Your task to perform on an android device: change timer sound Image 0: 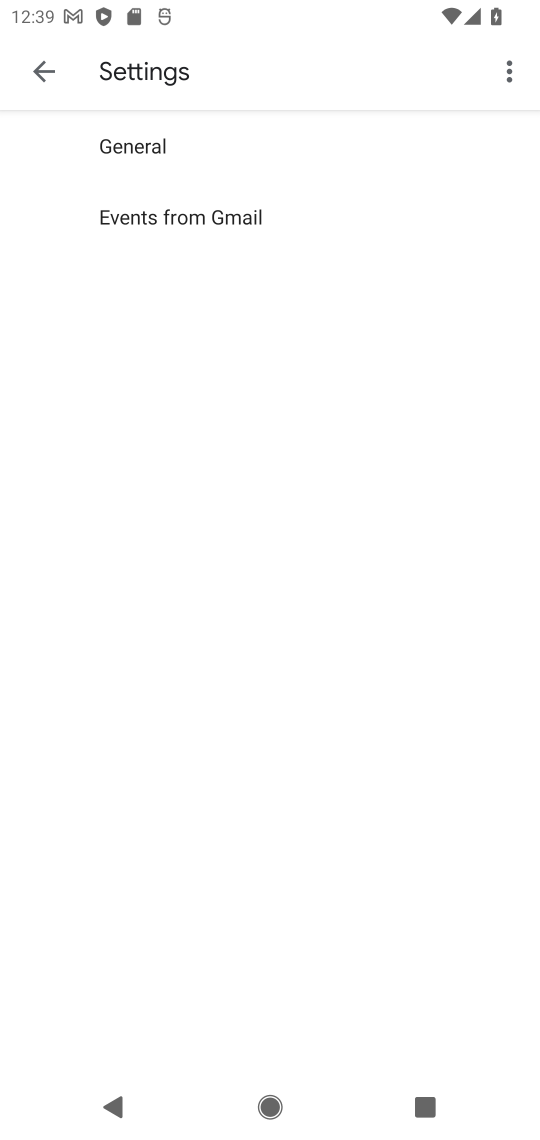
Step 0: press home button
Your task to perform on an android device: change timer sound Image 1: 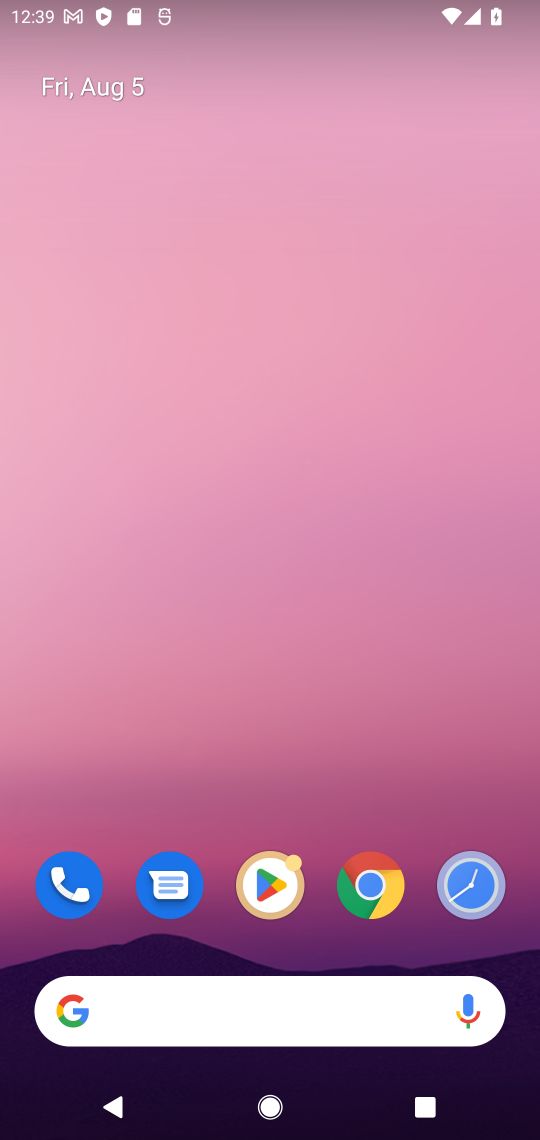
Step 1: drag from (231, 849) to (264, 192)
Your task to perform on an android device: change timer sound Image 2: 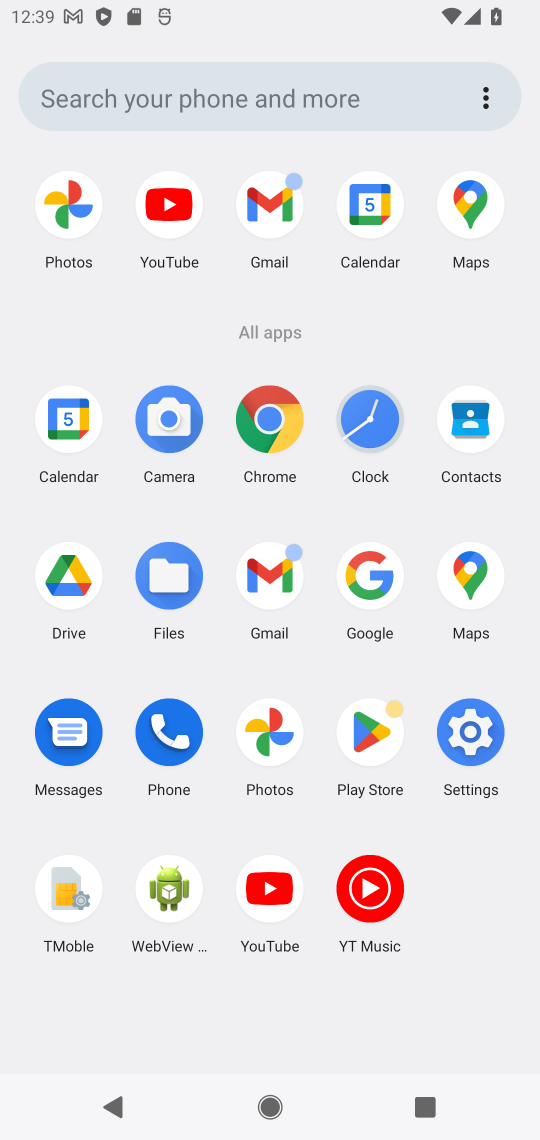
Step 2: click (373, 418)
Your task to perform on an android device: change timer sound Image 3: 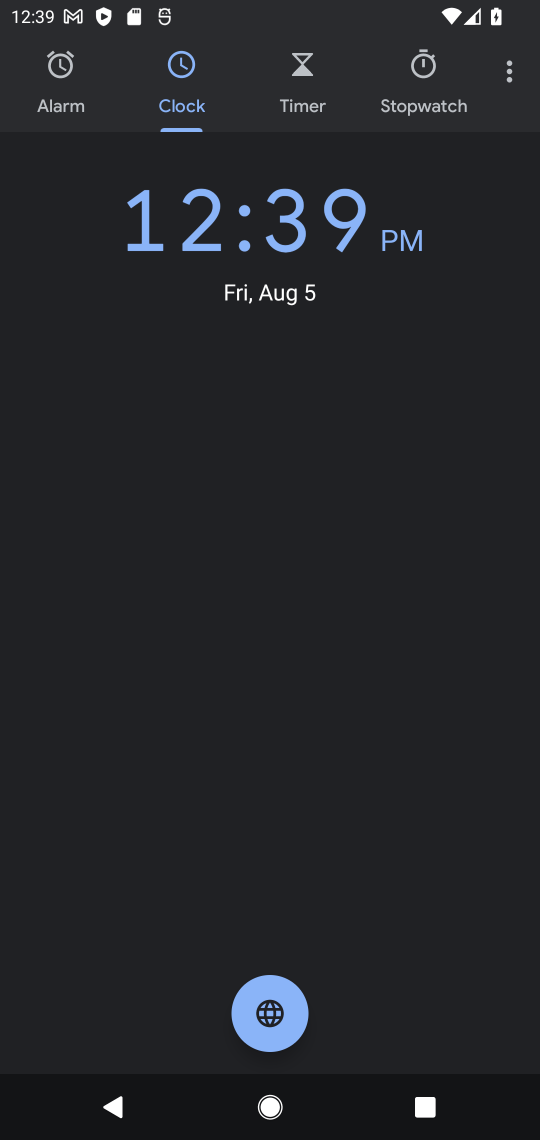
Step 3: click (511, 75)
Your task to perform on an android device: change timer sound Image 4: 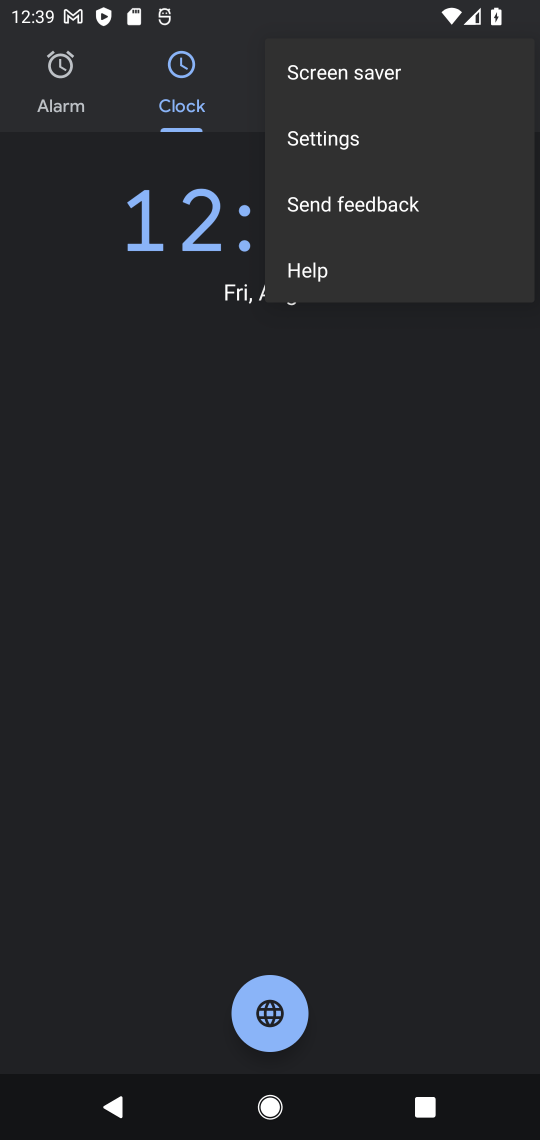
Step 4: click (335, 136)
Your task to perform on an android device: change timer sound Image 5: 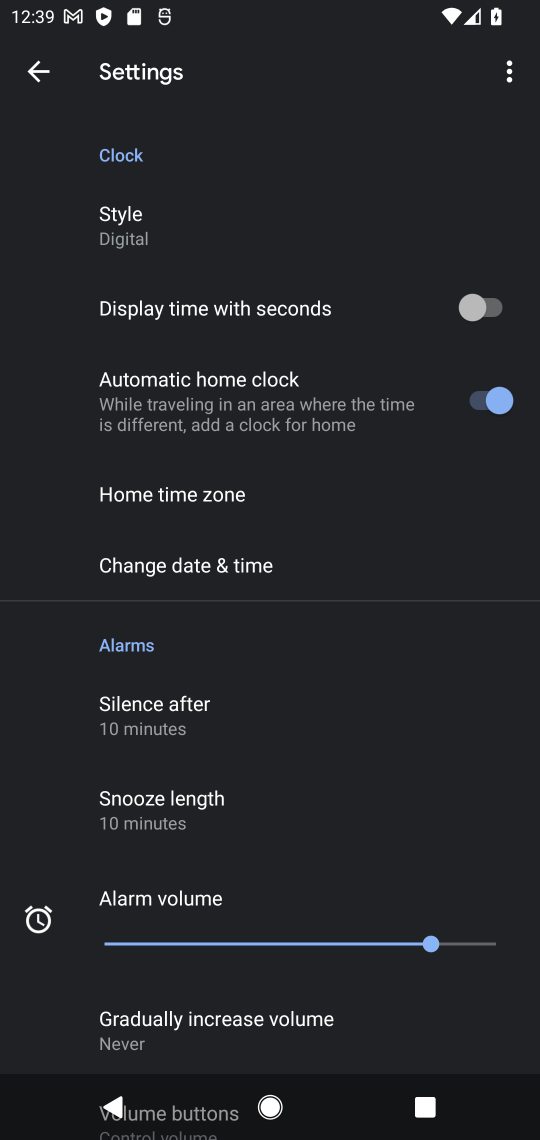
Step 5: drag from (347, 403) to (347, 164)
Your task to perform on an android device: change timer sound Image 6: 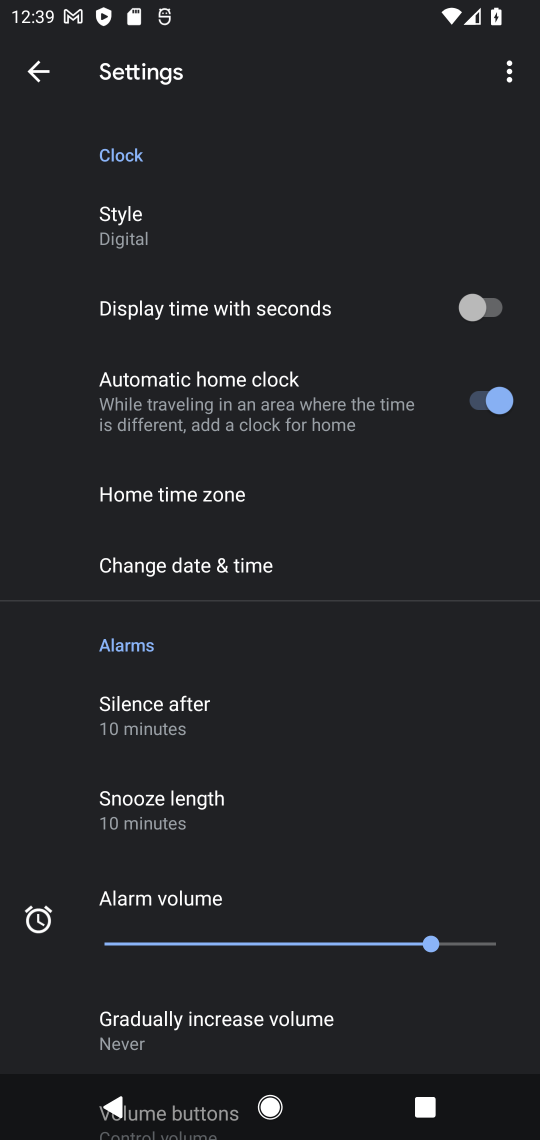
Step 6: drag from (256, 738) to (284, 123)
Your task to perform on an android device: change timer sound Image 7: 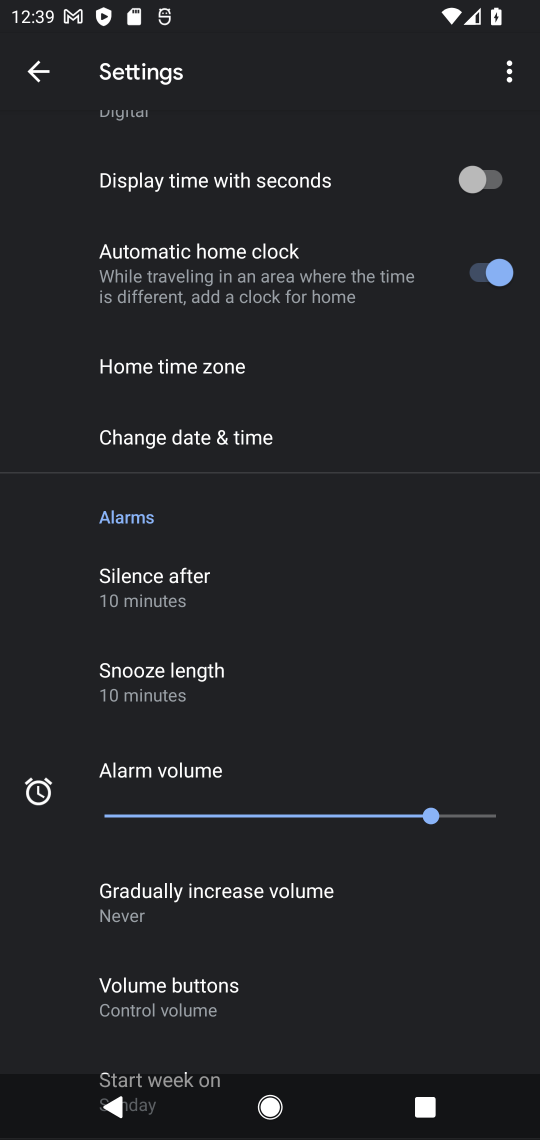
Step 7: drag from (215, 902) to (308, 303)
Your task to perform on an android device: change timer sound Image 8: 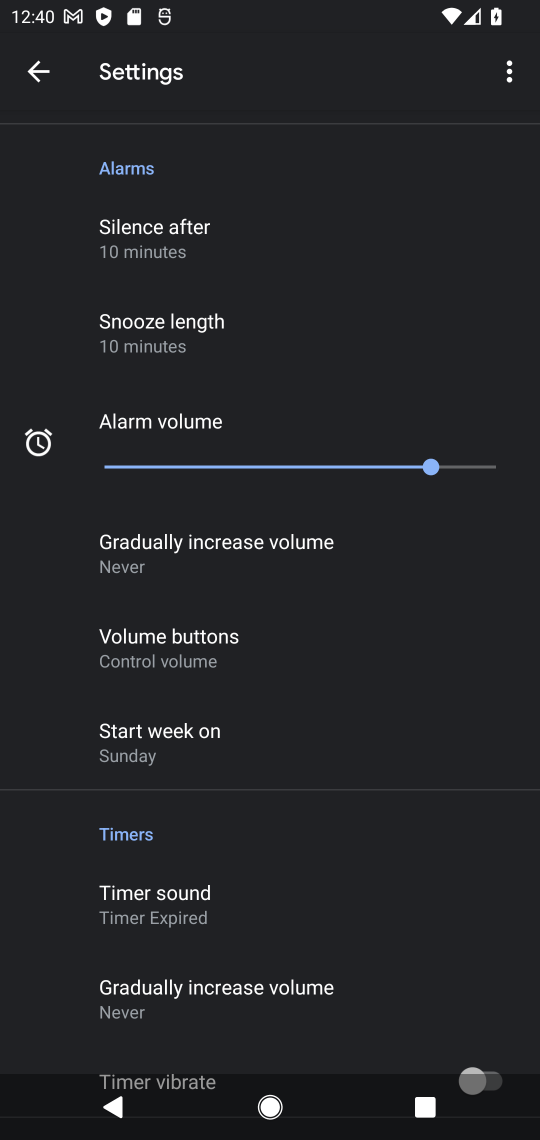
Step 8: click (177, 894)
Your task to perform on an android device: change timer sound Image 9: 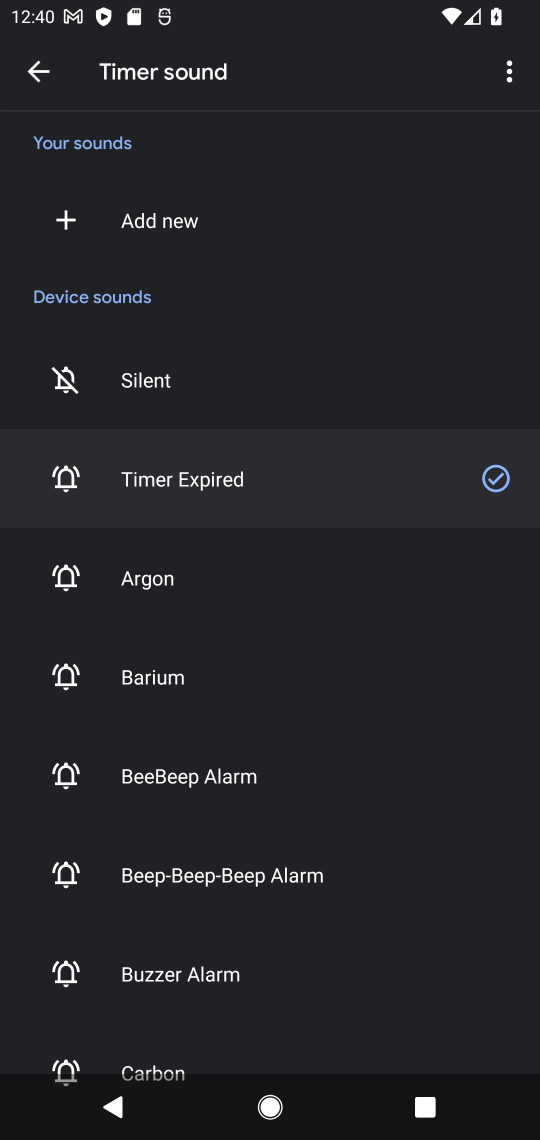
Step 9: click (153, 779)
Your task to perform on an android device: change timer sound Image 10: 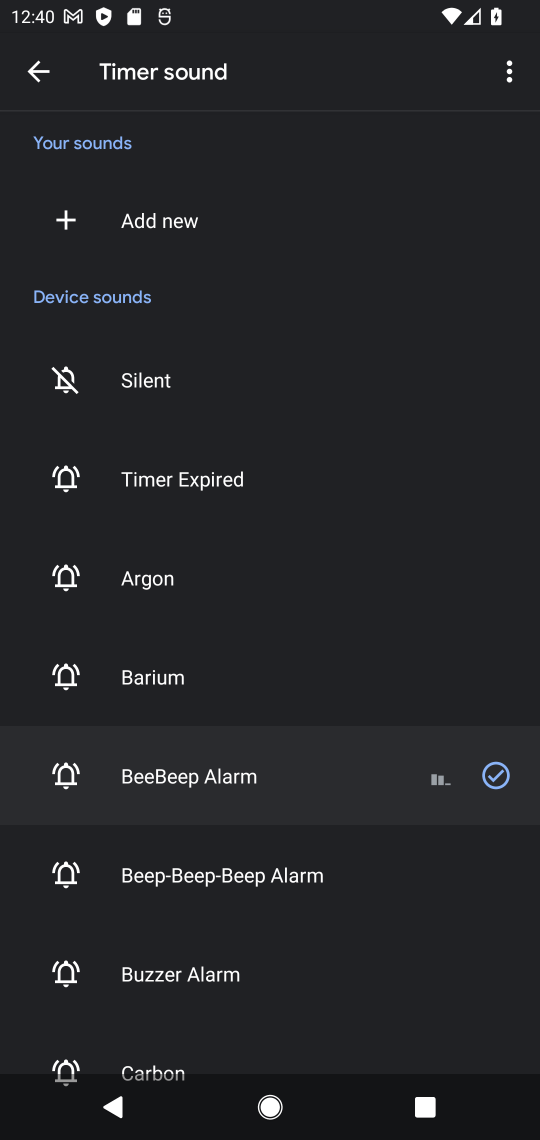
Step 10: task complete